Your task to perform on an android device: turn pop-ups on in chrome Image 0: 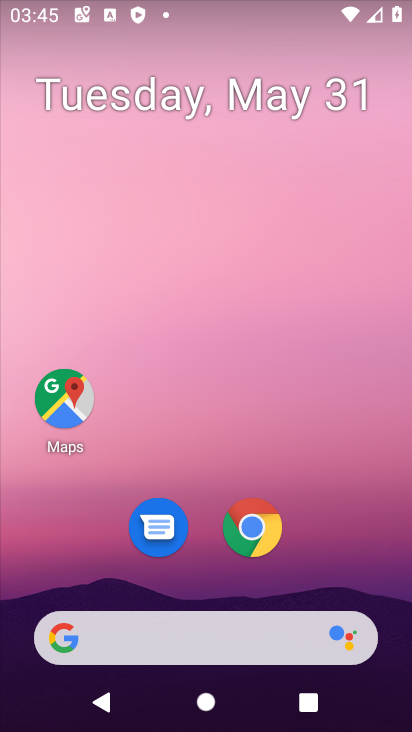
Step 0: click (254, 525)
Your task to perform on an android device: turn pop-ups on in chrome Image 1: 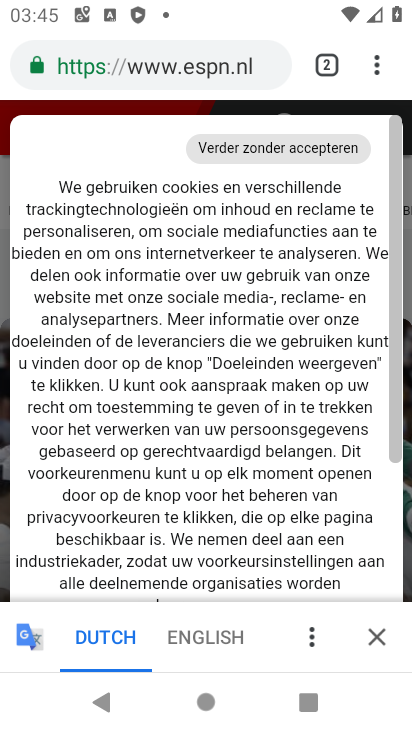
Step 1: click (378, 70)
Your task to perform on an android device: turn pop-ups on in chrome Image 2: 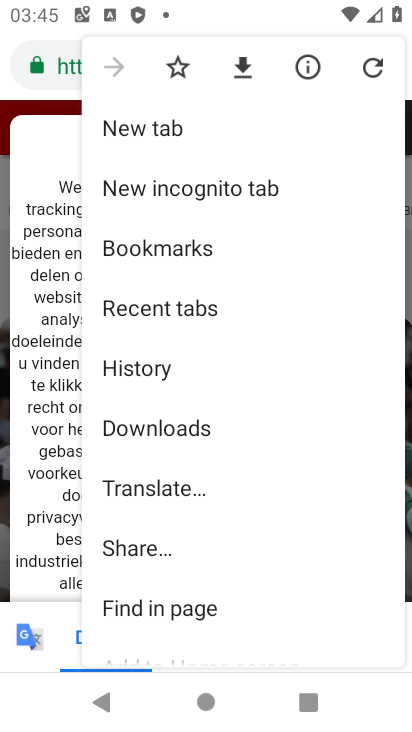
Step 2: drag from (260, 602) to (287, 181)
Your task to perform on an android device: turn pop-ups on in chrome Image 3: 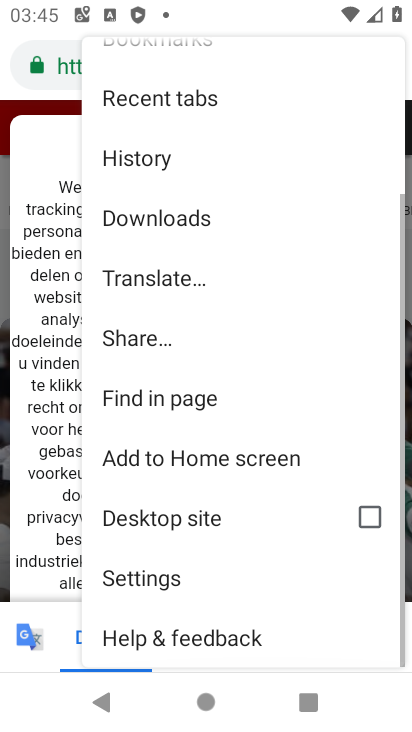
Step 3: click (148, 578)
Your task to perform on an android device: turn pop-ups on in chrome Image 4: 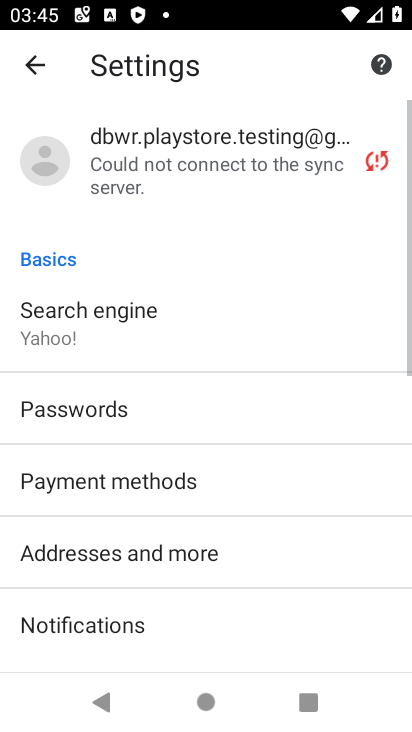
Step 4: drag from (245, 602) to (229, 86)
Your task to perform on an android device: turn pop-ups on in chrome Image 5: 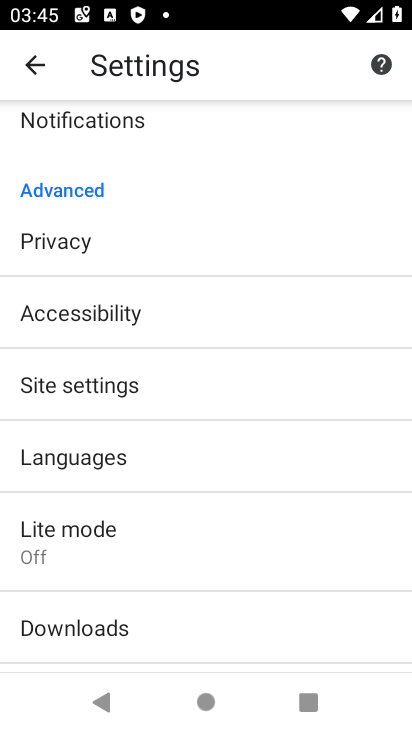
Step 5: click (71, 388)
Your task to perform on an android device: turn pop-ups on in chrome Image 6: 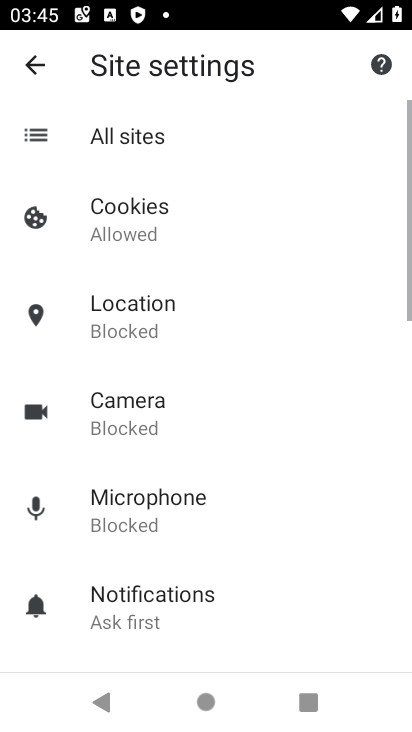
Step 6: drag from (223, 620) to (238, 113)
Your task to perform on an android device: turn pop-ups on in chrome Image 7: 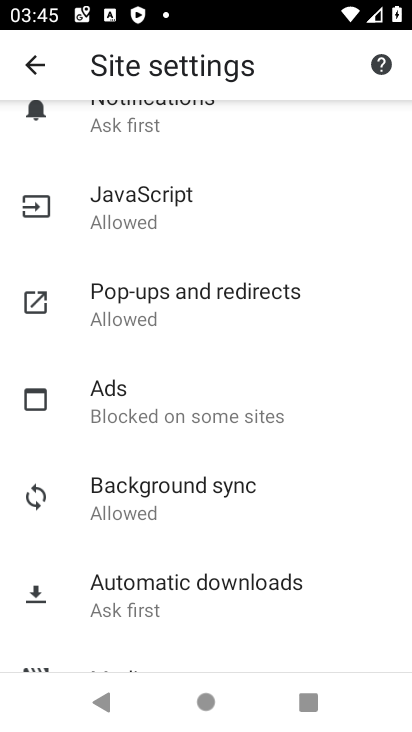
Step 7: click (143, 289)
Your task to perform on an android device: turn pop-ups on in chrome Image 8: 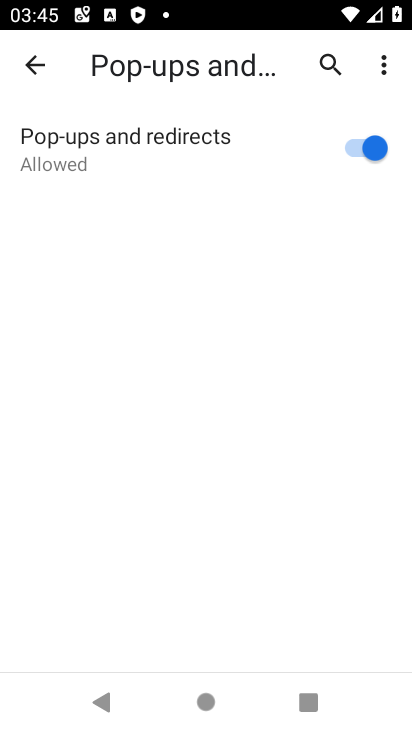
Step 8: task complete